Your task to perform on an android device: refresh tabs in the chrome app Image 0: 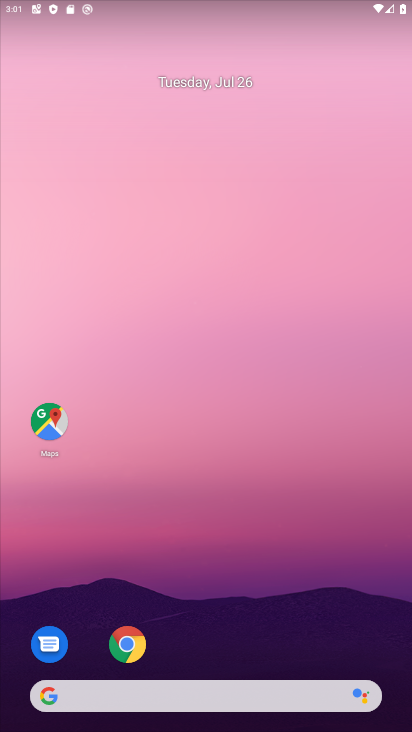
Step 0: click (120, 645)
Your task to perform on an android device: refresh tabs in the chrome app Image 1: 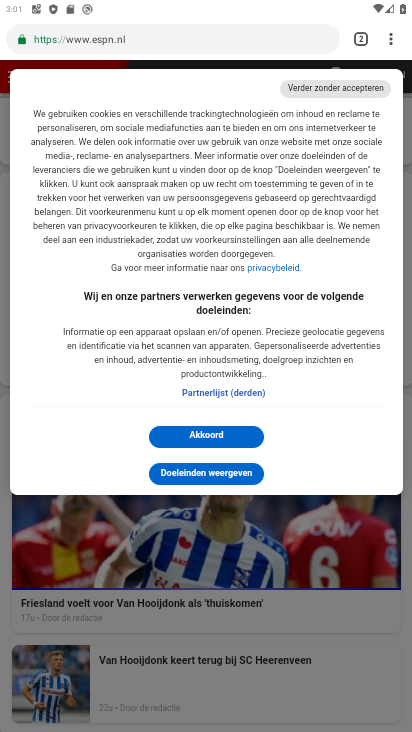
Step 1: click (384, 38)
Your task to perform on an android device: refresh tabs in the chrome app Image 2: 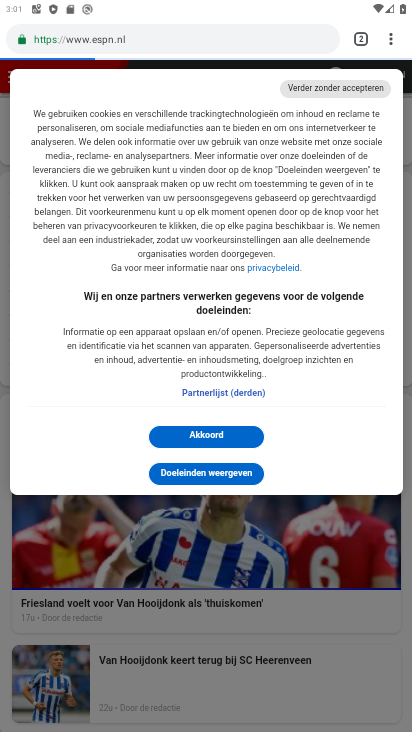
Step 2: click (388, 38)
Your task to perform on an android device: refresh tabs in the chrome app Image 3: 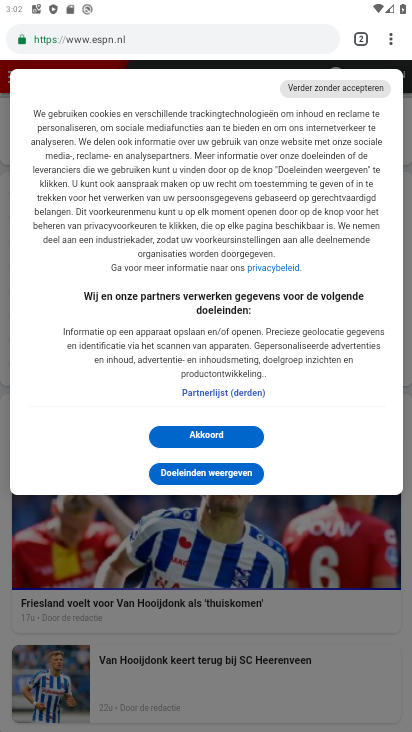
Step 3: click (390, 43)
Your task to perform on an android device: refresh tabs in the chrome app Image 4: 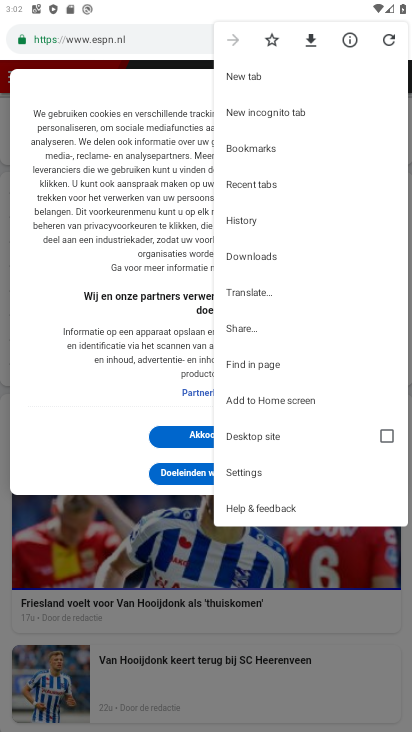
Step 4: click (388, 40)
Your task to perform on an android device: refresh tabs in the chrome app Image 5: 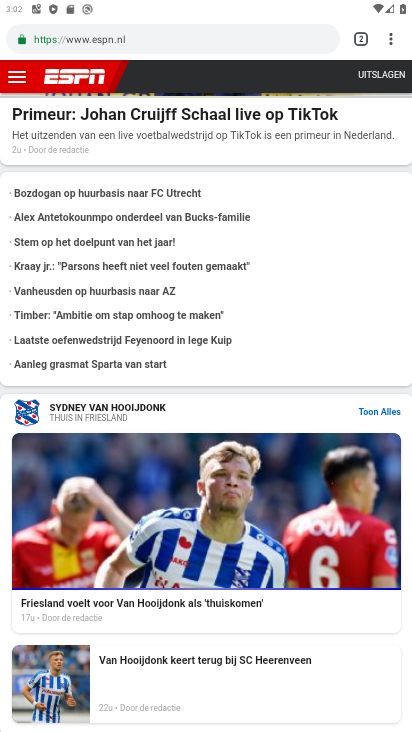
Step 5: task complete